Your task to perform on an android device: find photos in the google photos app Image 0: 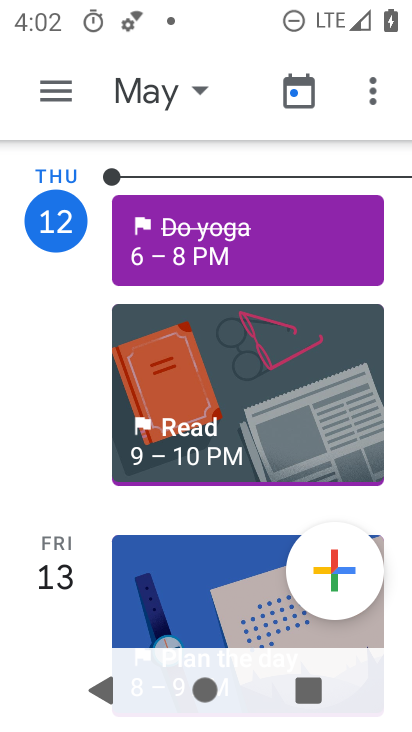
Step 0: press home button
Your task to perform on an android device: find photos in the google photos app Image 1: 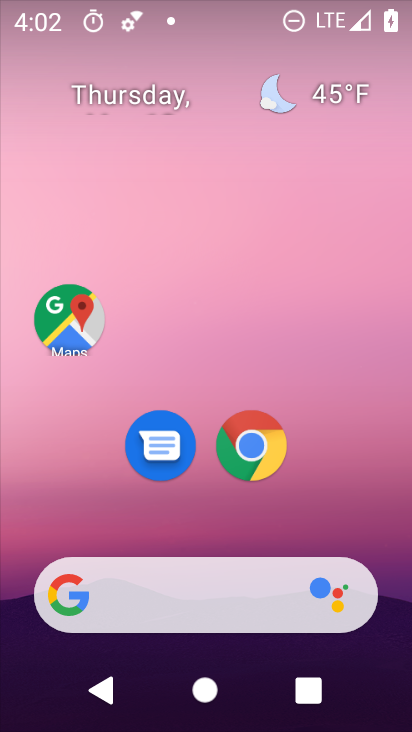
Step 1: drag from (337, 481) to (240, 35)
Your task to perform on an android device: find photos in the google photos app Image 2: 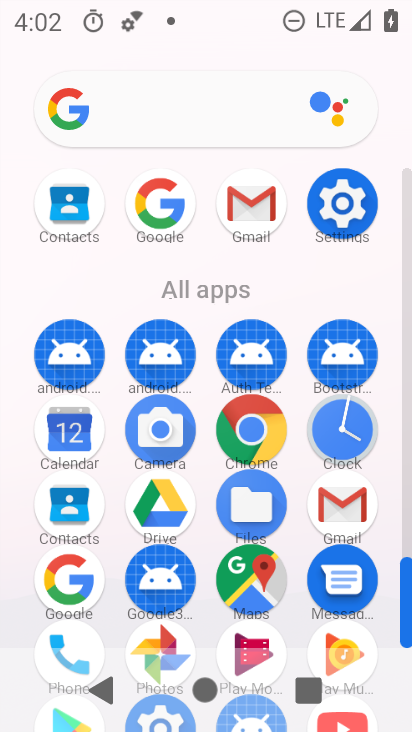
Step 2: drag from (208, 501) to (198, 198)
Your task to perform on an android device: find photos in the google photos app Image 3: 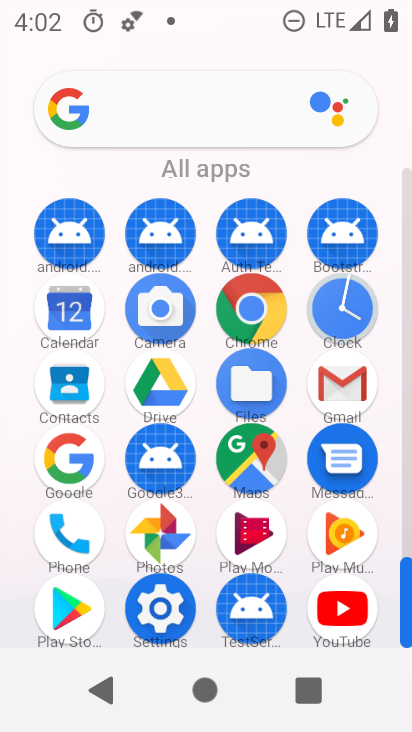
Step 3: click (159, 525)
Your task to perform on an android device: find photos in the google photos app Image 4: 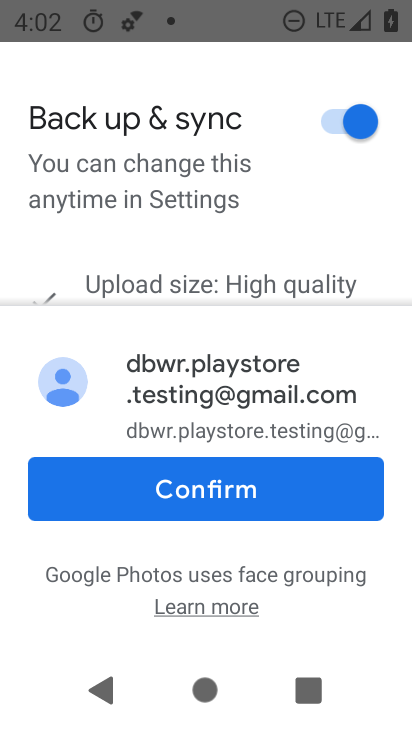
Step 4: click (204, 496)
Your task to perform on an android device: find photos in the google photos app Image 5: 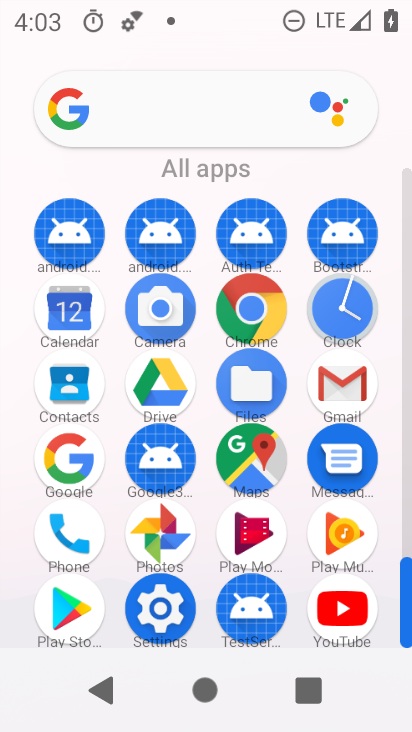
Step 5: click (159, 535)
Your task to perform on an android device: find photos in the google photos app Image 6: 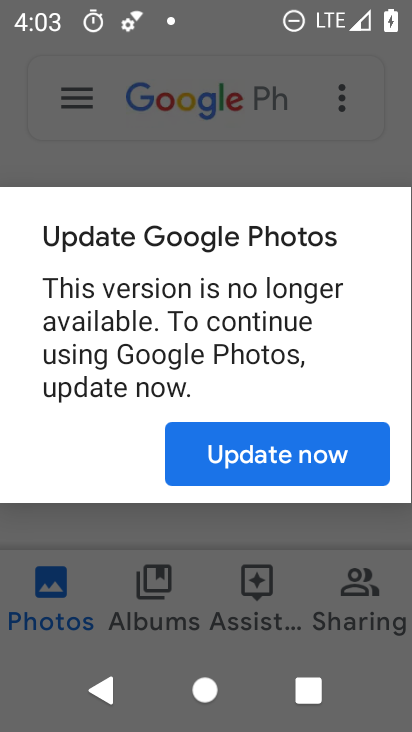
Step 6: click (265, 452)
Your task to perform on an android device: find photos in the google photos app Image 7: 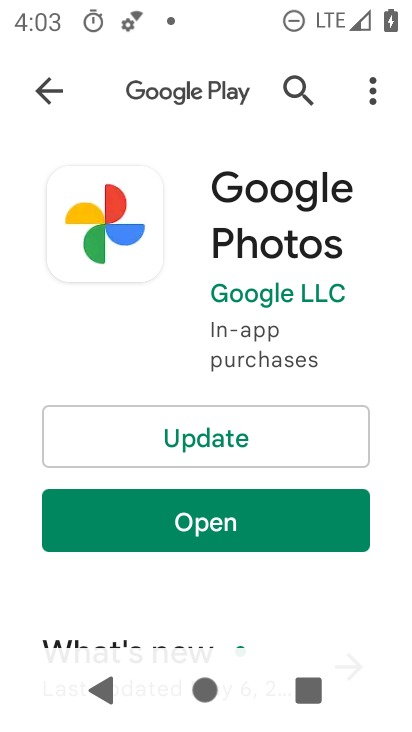
Step 7: click (239, 447)
Your task to perform on an android device: find photos in the google photos app Image 8: 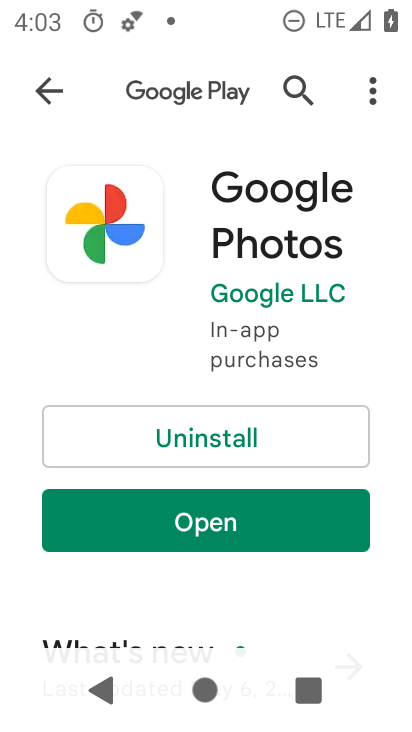
Step 8: click (210, 515)
Your task to perform on an android device: find photos in the google photos app Image 9: 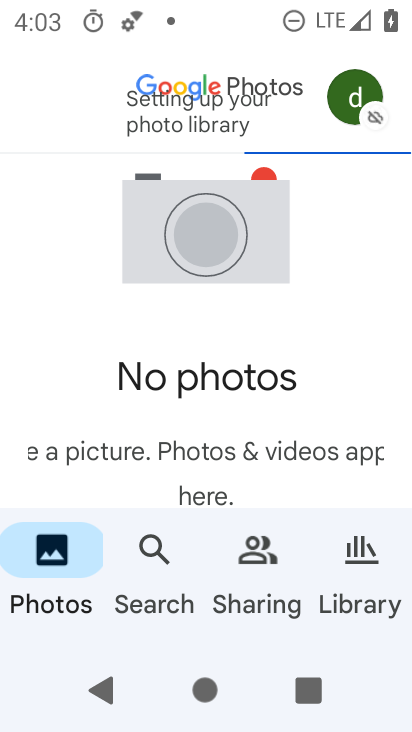
Step 9: click (134, 553)
Your task to perform on an android device: find photos in the google photos app Image 10: 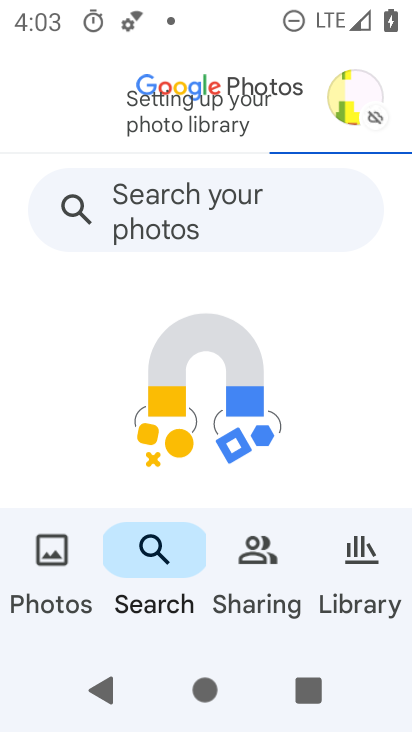
Step 10: click (178, 210)
Your task to perform on an android device: find photos in the google photos app Image 11: 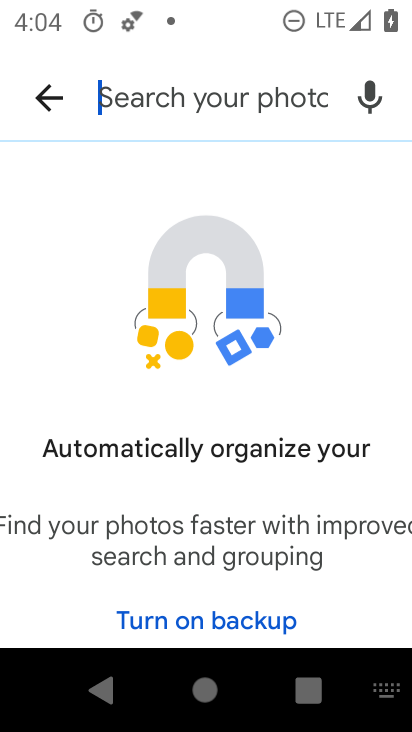
Step 11: drag from (230, 573) to (217, 277)
Your task to perform on an android device: find photos in the google photos app Image 12: 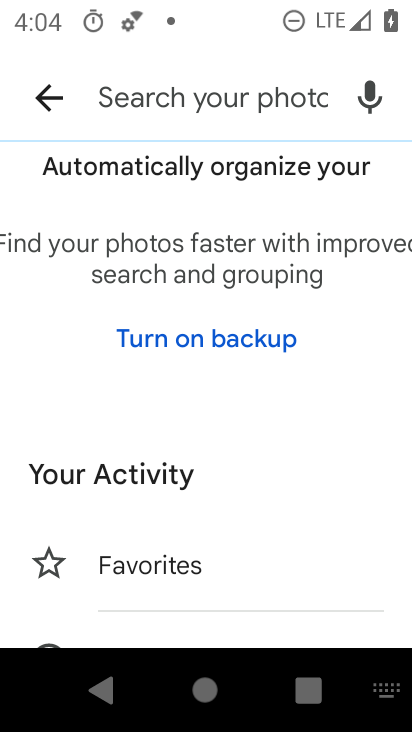
Step 12: click (152, 557)
Your task to perform on an android device: find photos in the google photos app Image 13: 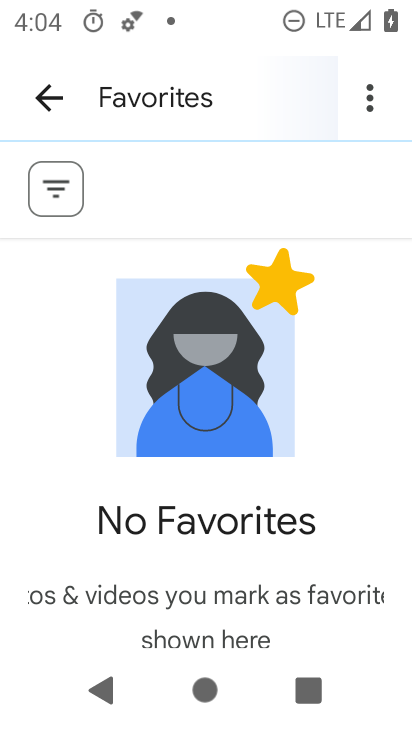
Step 13: drag from (213, 529) to (238, 281)
Your task to perform on an android device: find photos in the google photos app Image 14: 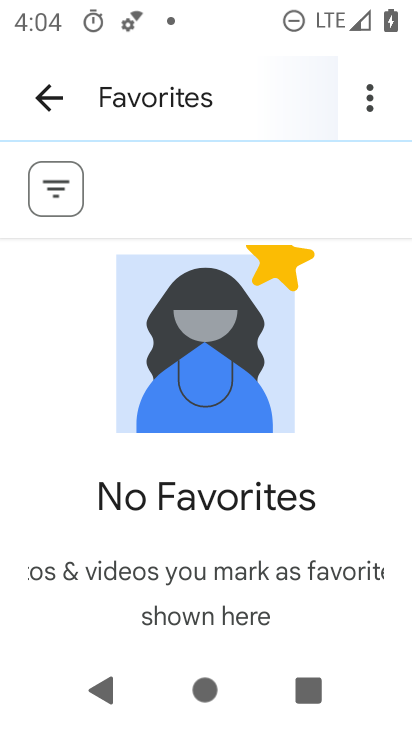
Step 14: press back button
Your task to perform on an android device: find photos in the google photos app Image 15: 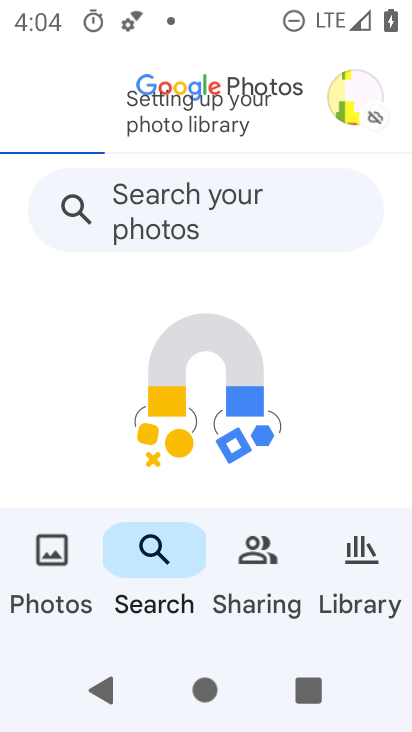
Step 15: click (49, 556)
Your task to perform on an android device: find photos in the google photos app Image 16: 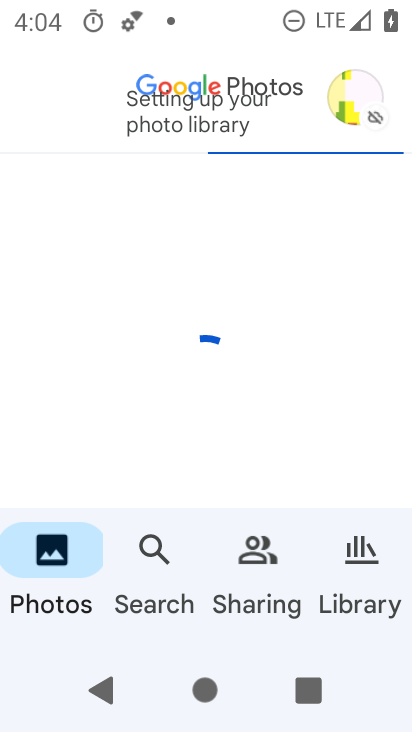
Step 16: click (256, 556)
Your task to perform on an android device: find photos in the google photos app Image 17: 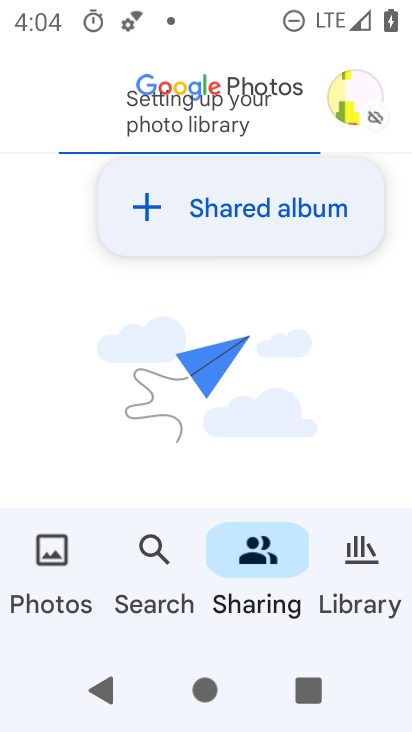
Step 17: click (364, 553)
Your task to perform on an android device: find photos in the google photos app Image 18: 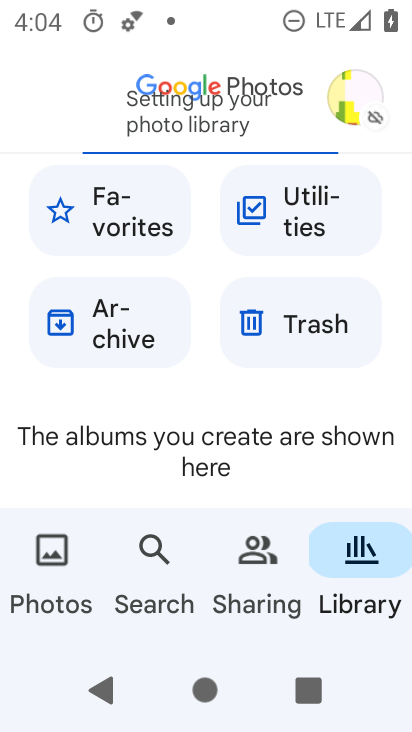
Step 18: task complete